Your task to perform on an android device: Clear the cart on bestbuy.com. Image 0: 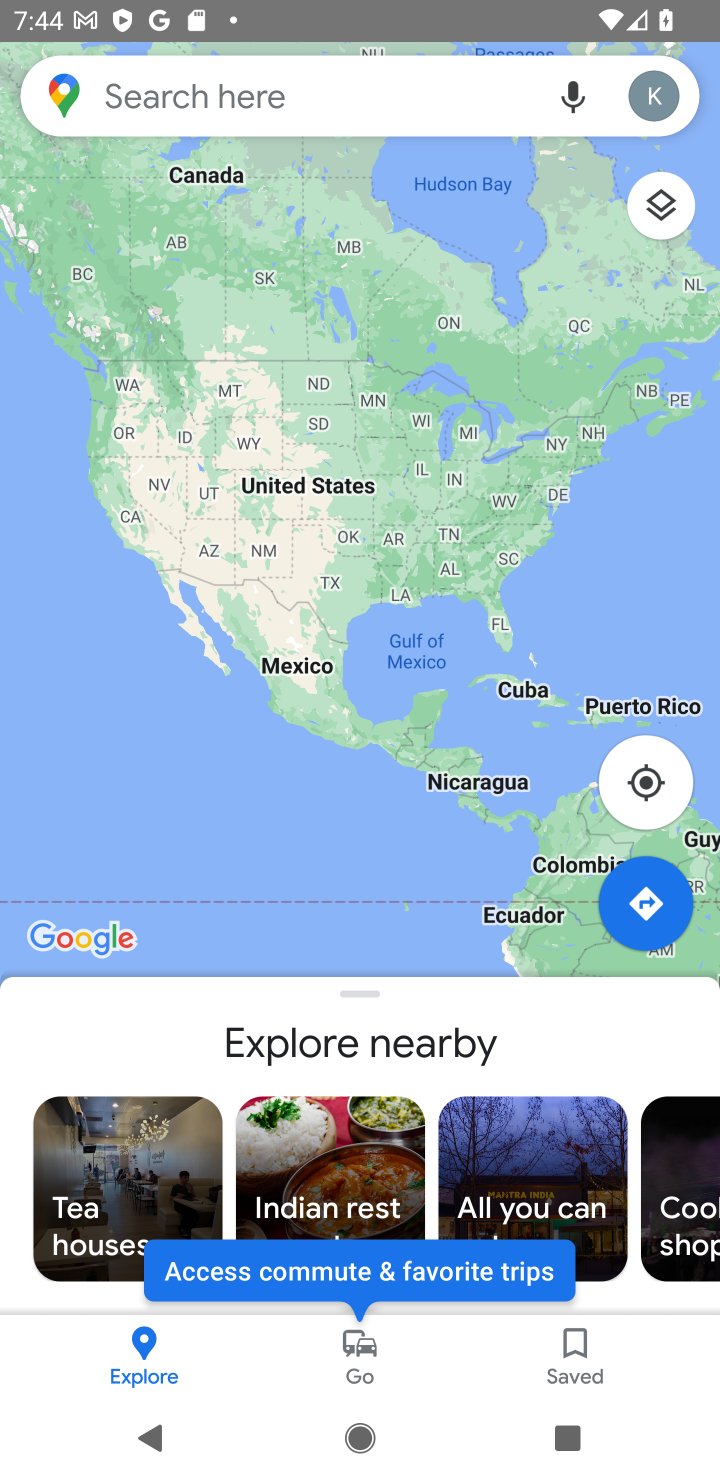
Step 0: press home button
Your task to perform on an android device: Clear the cart on bestbuy.com. Image 1: 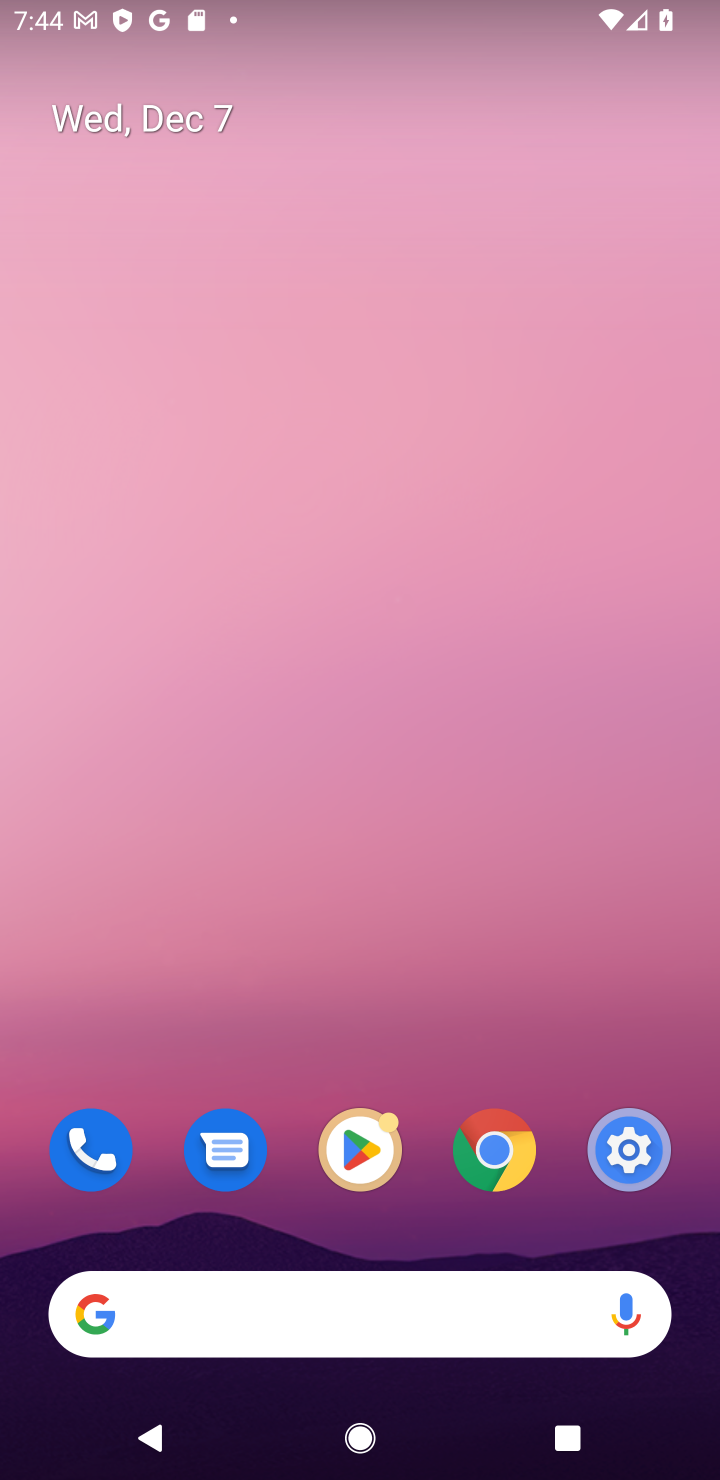
Step 1: click (493, 1167)
Your task to perform on an android device: Clear the cart on bestbuy.com. Image 2: 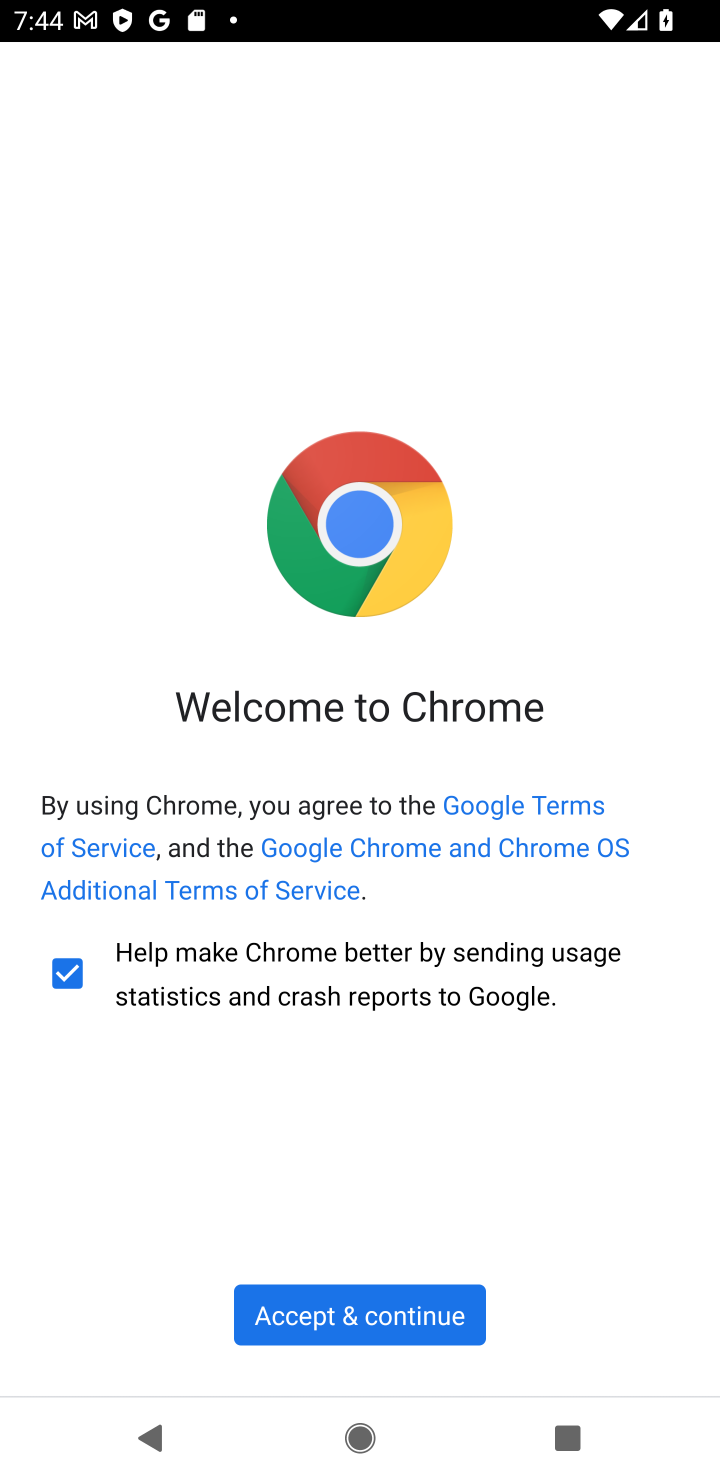
Step 2: click (343, 1312)
Your task to perform on an android device: Clear the cart on bestbuy.com. Image 3: 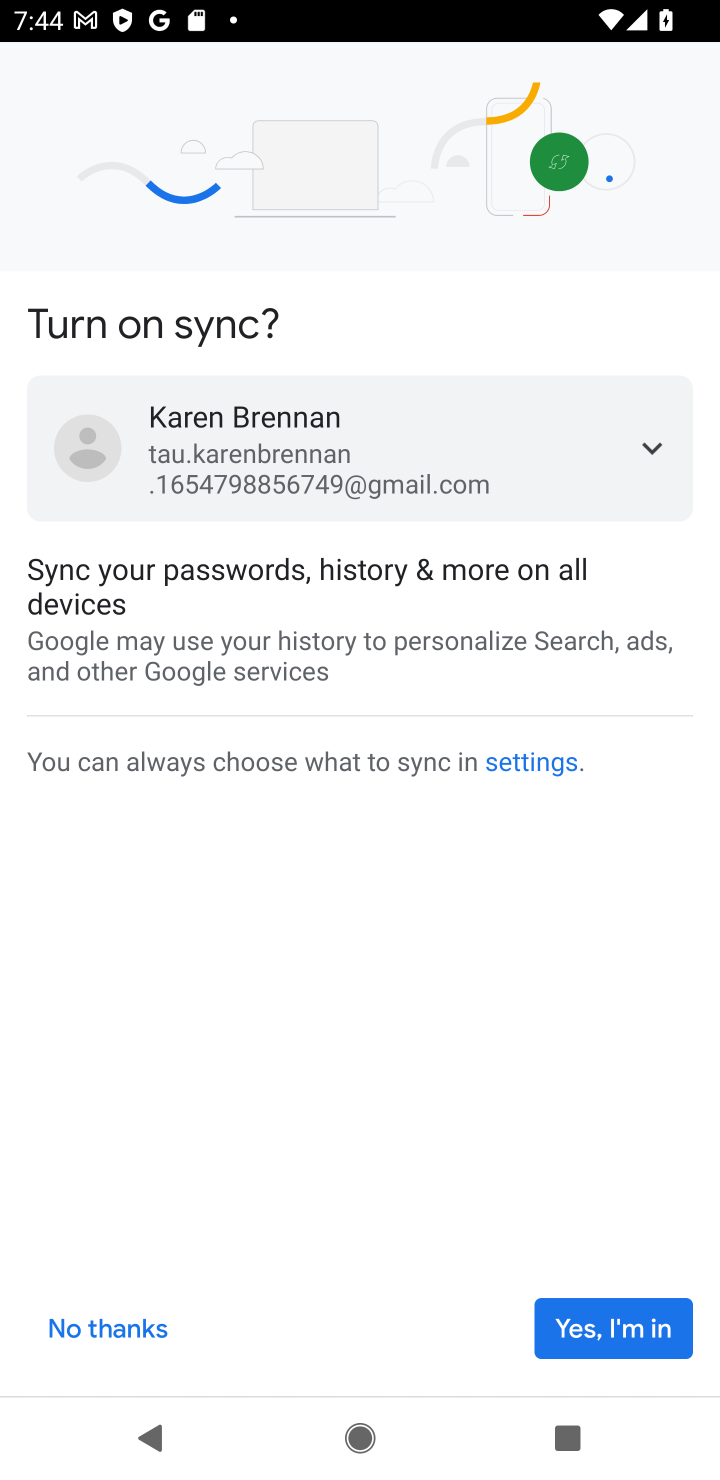
Step 3: click (598, 1343)
Your task to perform on an android device: Clear the cart on bestbuy.com. Image 4: 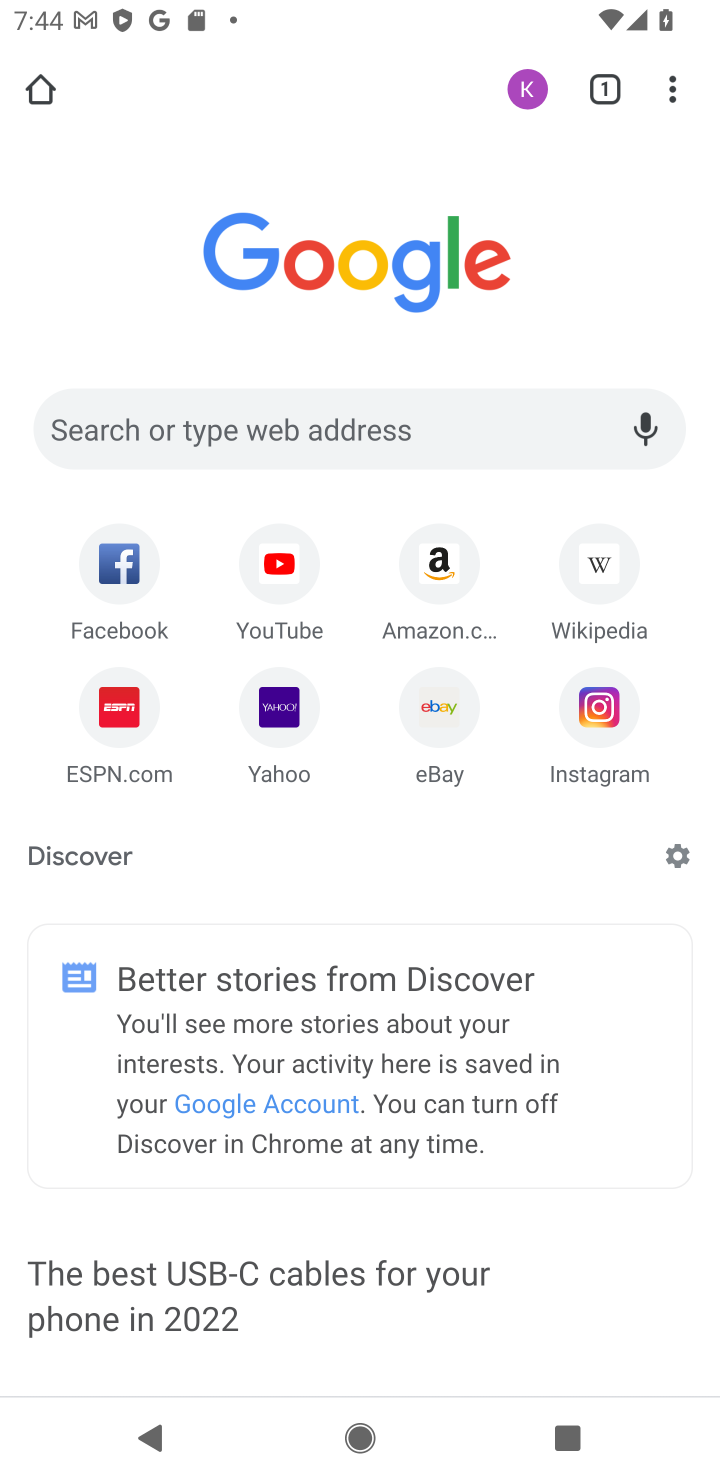
Step 4: click (414, 442)
Your task to perform on an android device: Clear the cart on bestbuy.com. Image 5: 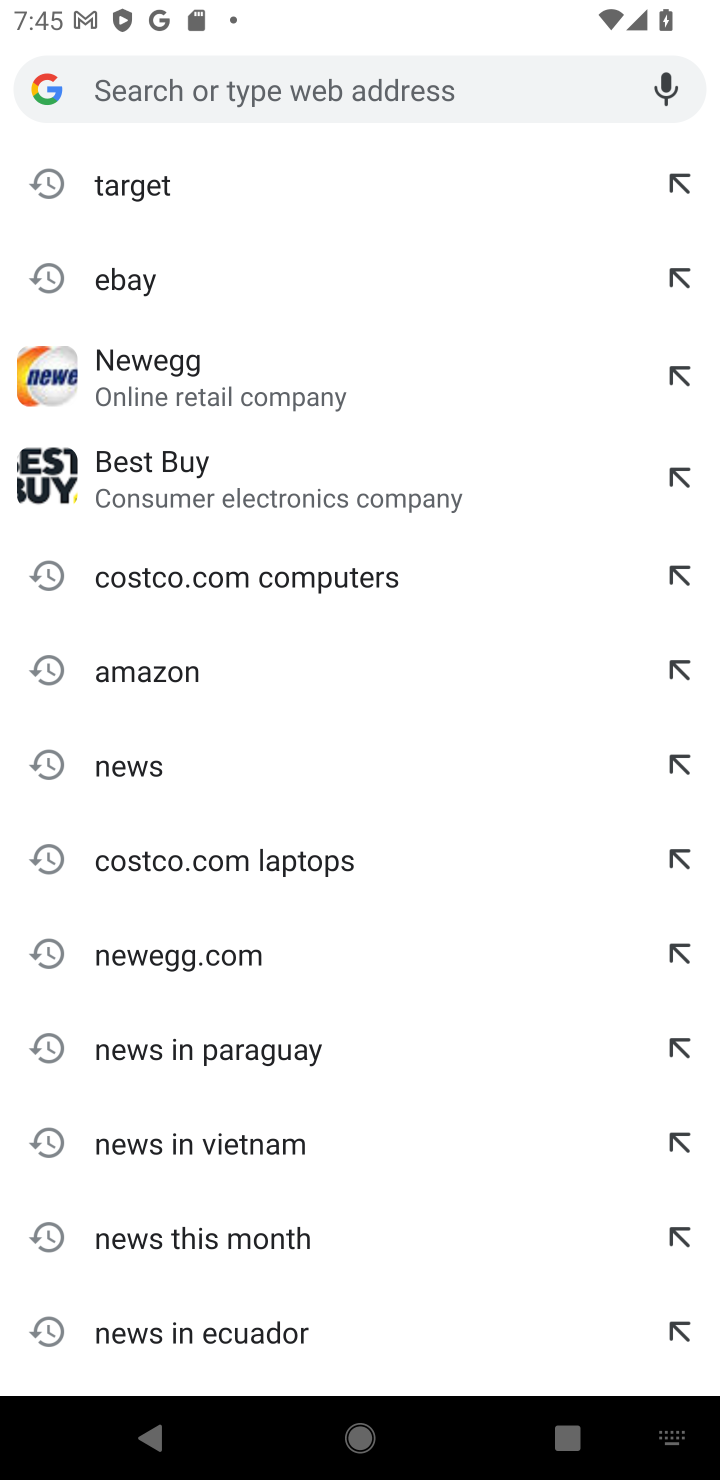
Step 5: type "bestbuy.com"
Your task to perform on an android device: Clear the cart on bestbuy.com. Image 6: 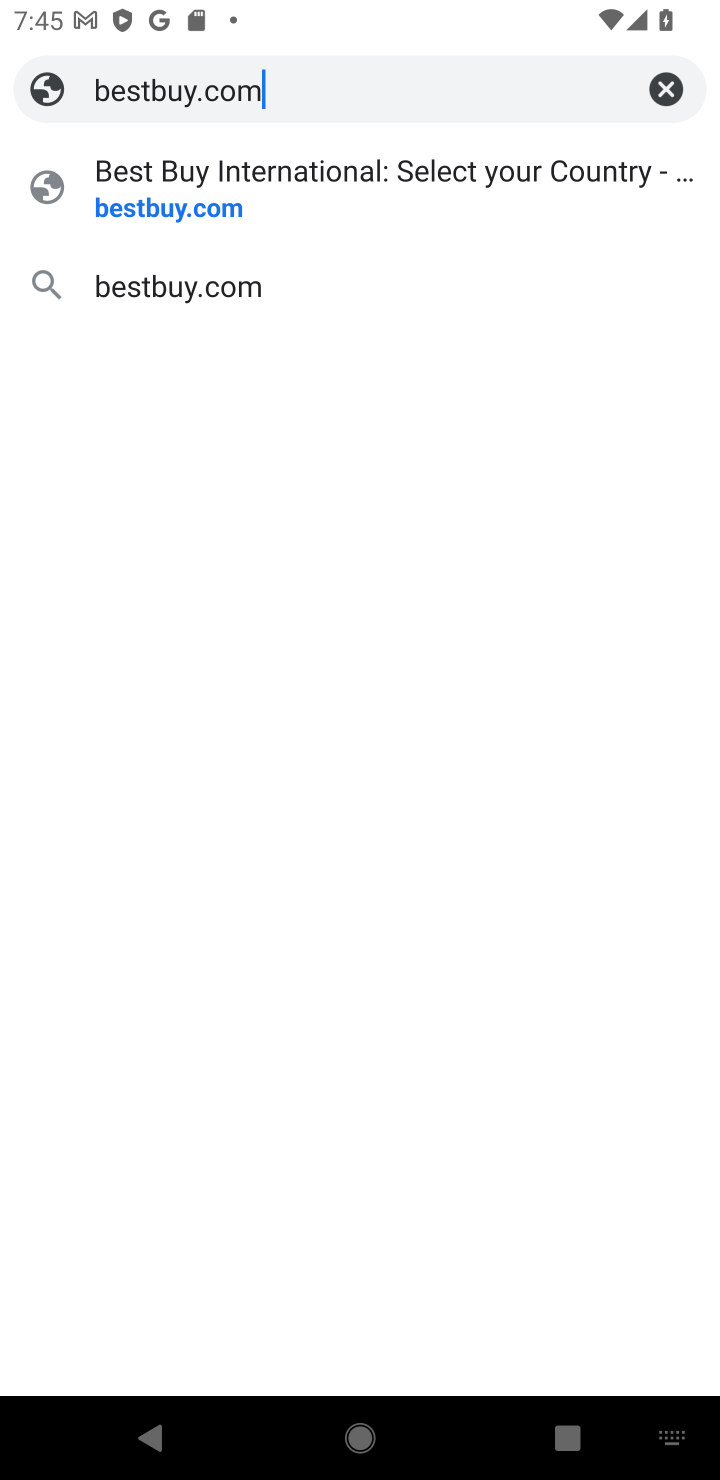
Step 6: press enter
Your task to perform on an android device: Clear the cart on bestbuy.com. Image 7: 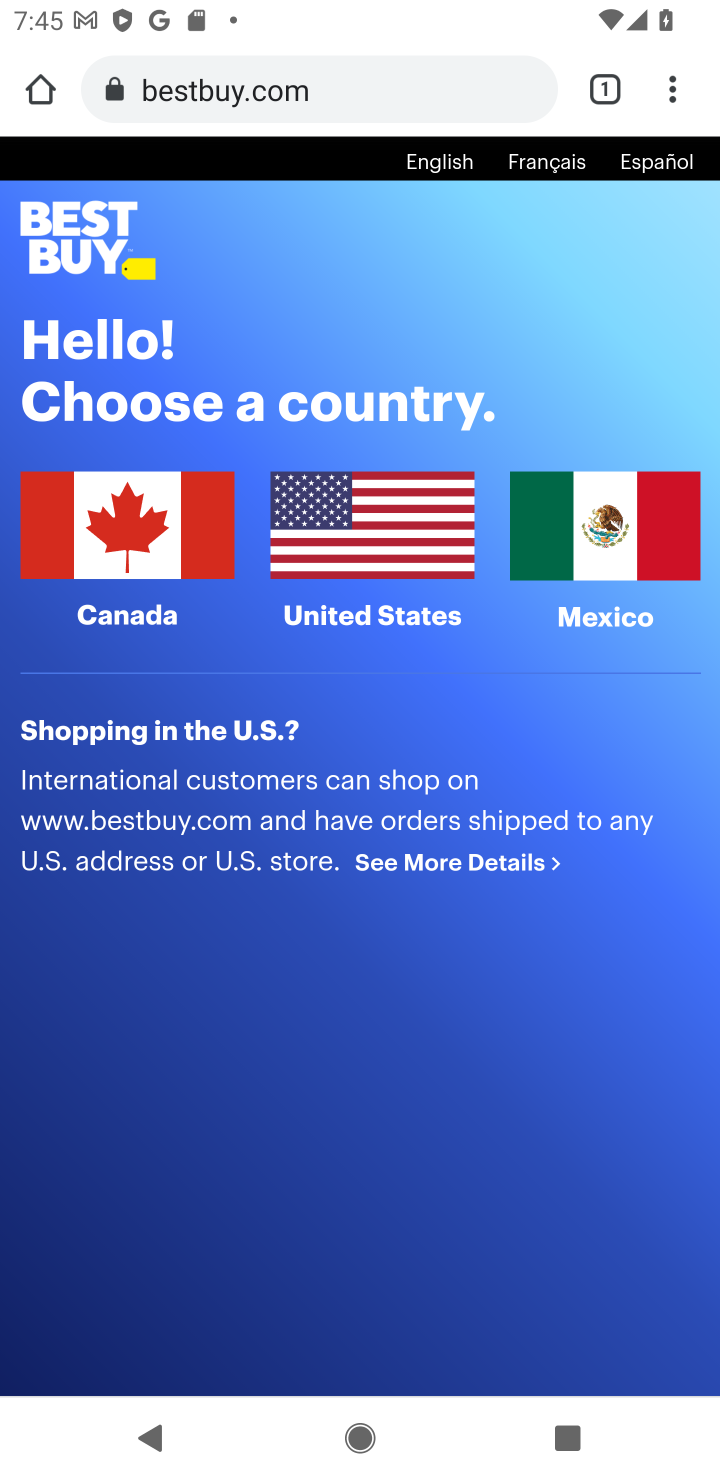
Step 7: click (420, 526)
Your task to perform on an android device: Clear the cart on bestbuy.com. Image 8: 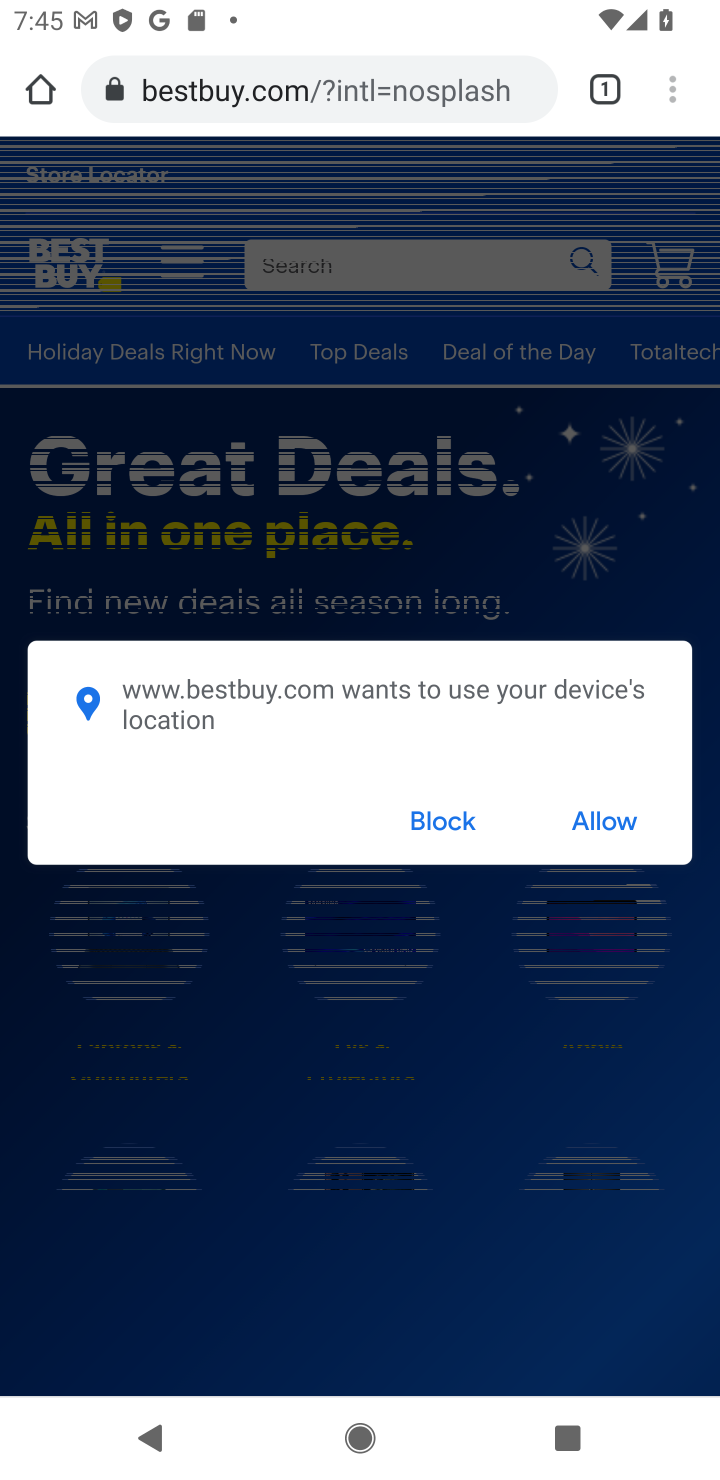
Step 8: click (450, 819)
Your task to perform on an android device: Clear the cart on bestbuy.com. Image 9: 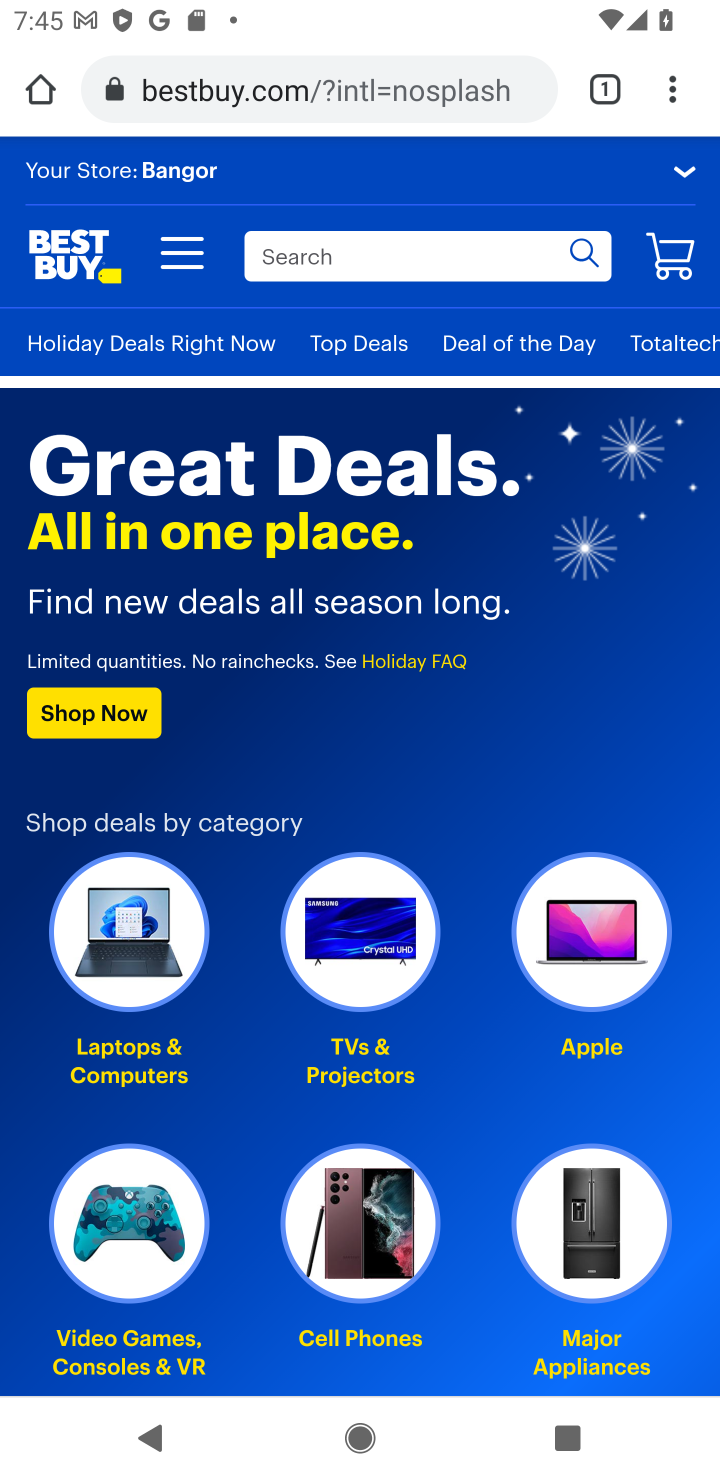
Step 9: click (662, 259)
Your task to perform on an android device: Clear the cart on bestbuy.com. Image 10: 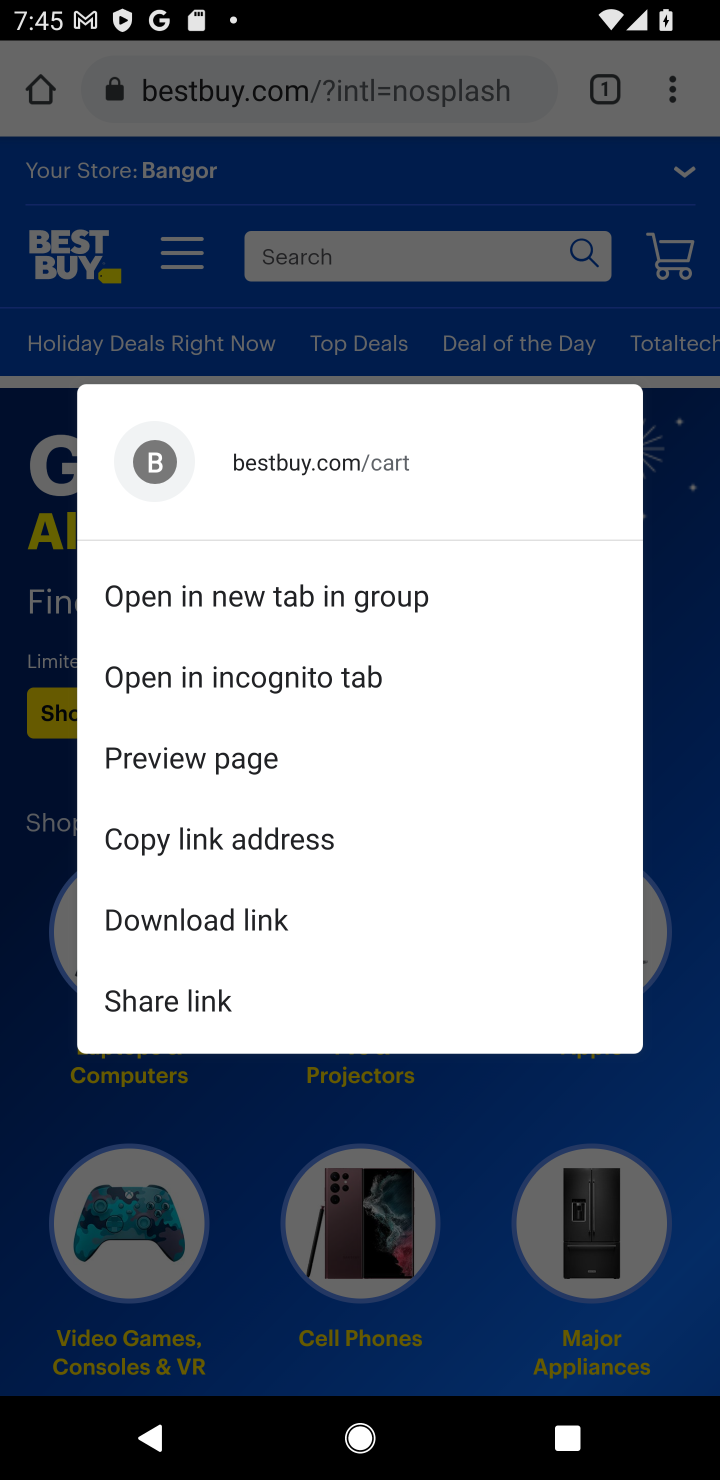
Step 10: click (701, 464)
Your task to perform on an android device: Clear the cart on bestbuy.com. Image 11: 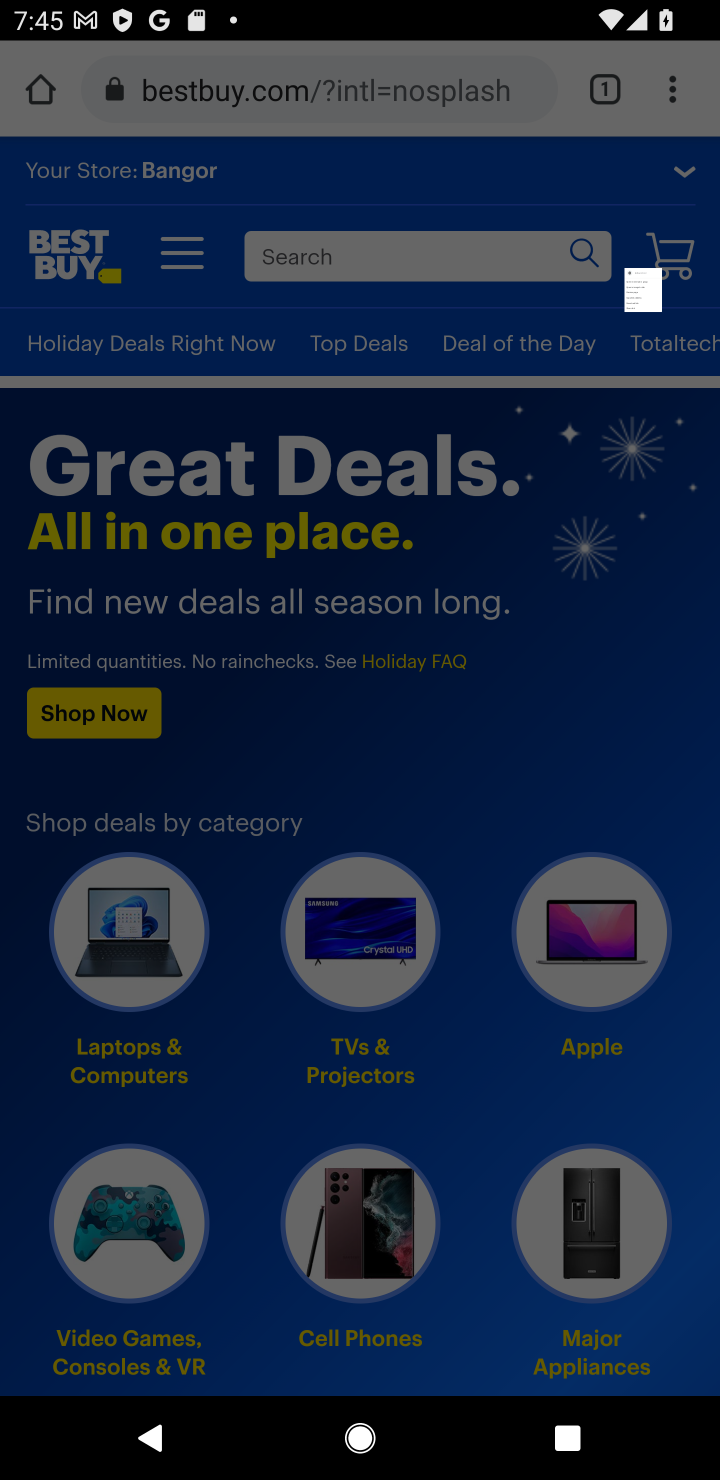
Step 11: click (681, 279)
Your task to perform on an android device: Clear the cart on bestbuy.com. Image 12: 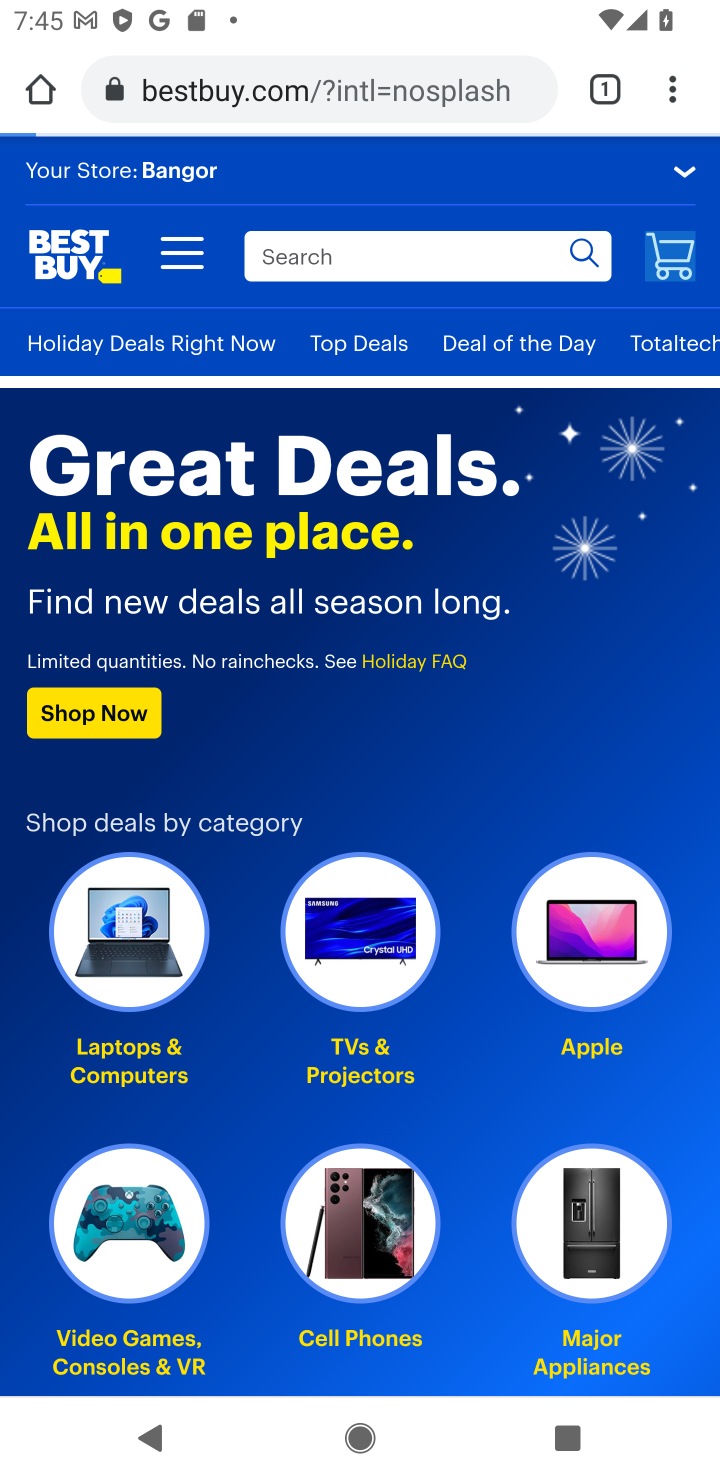
Step 12: click (681, 279)
Your task to perform on an android device: Clear the cart on bestbuy.com. Image 13: 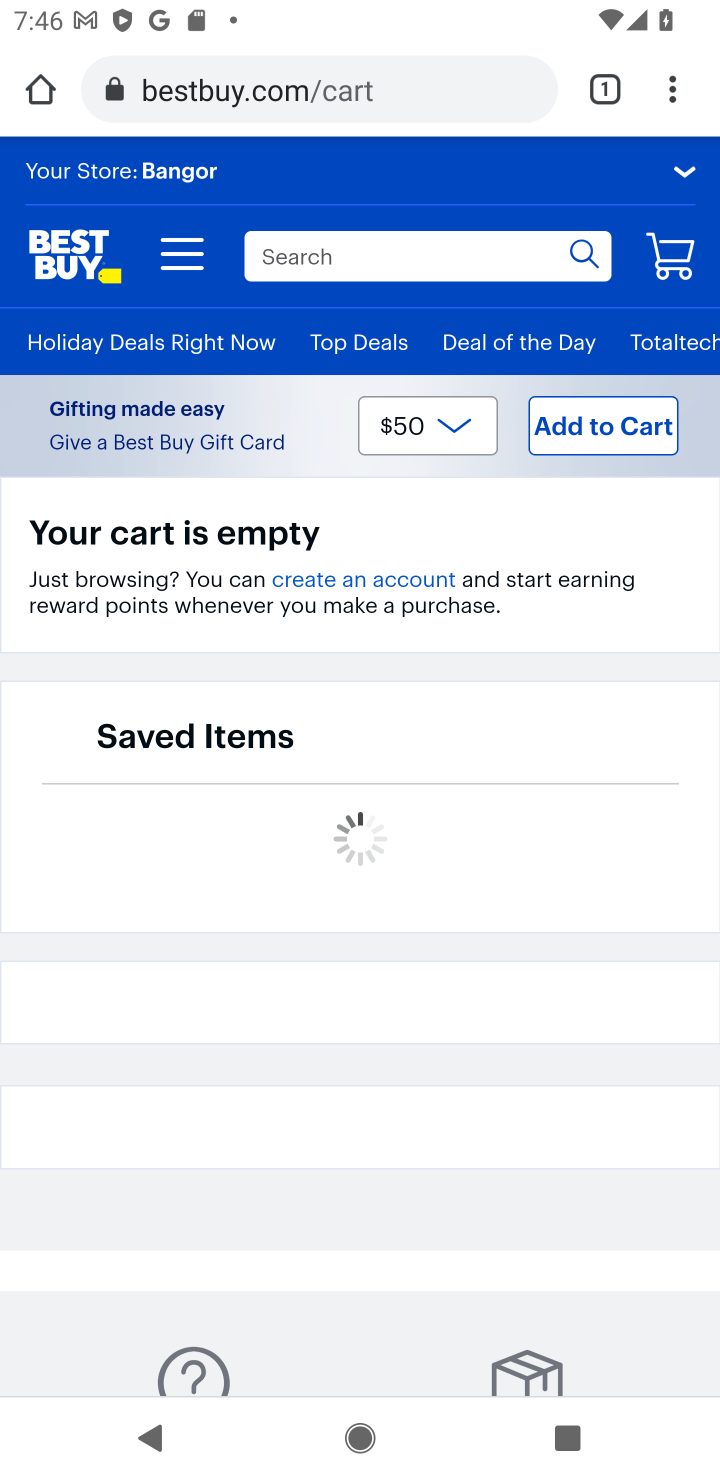
Step 13: task complete